Your task to perform on an android device: change the clock display to digital Image 0: 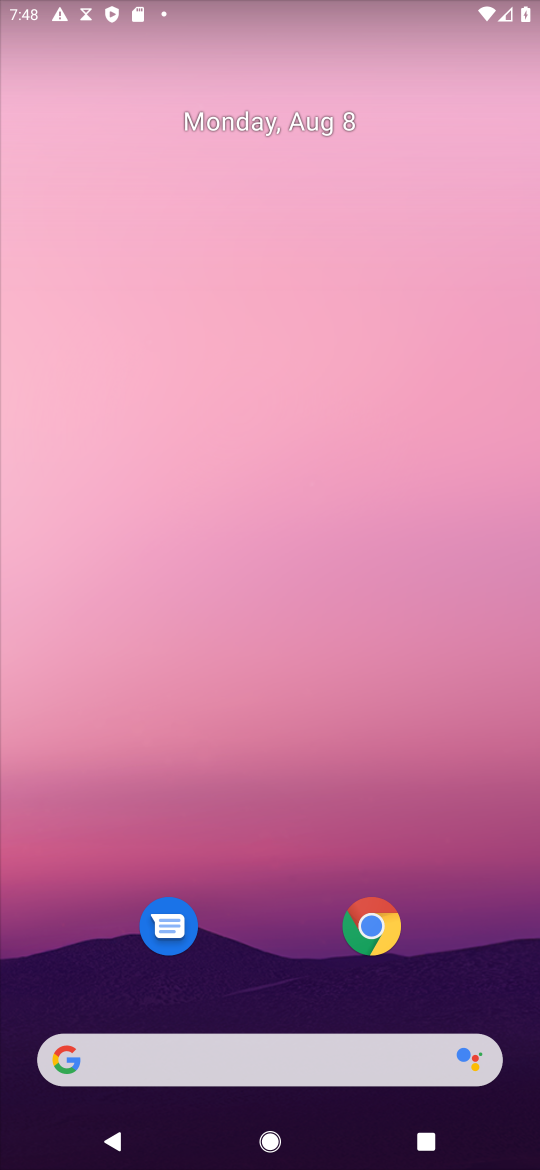
Step 0: drag from (250, 788) to (276, 263)
Your task to perform on an android device: change the clock display to digital Image 1: 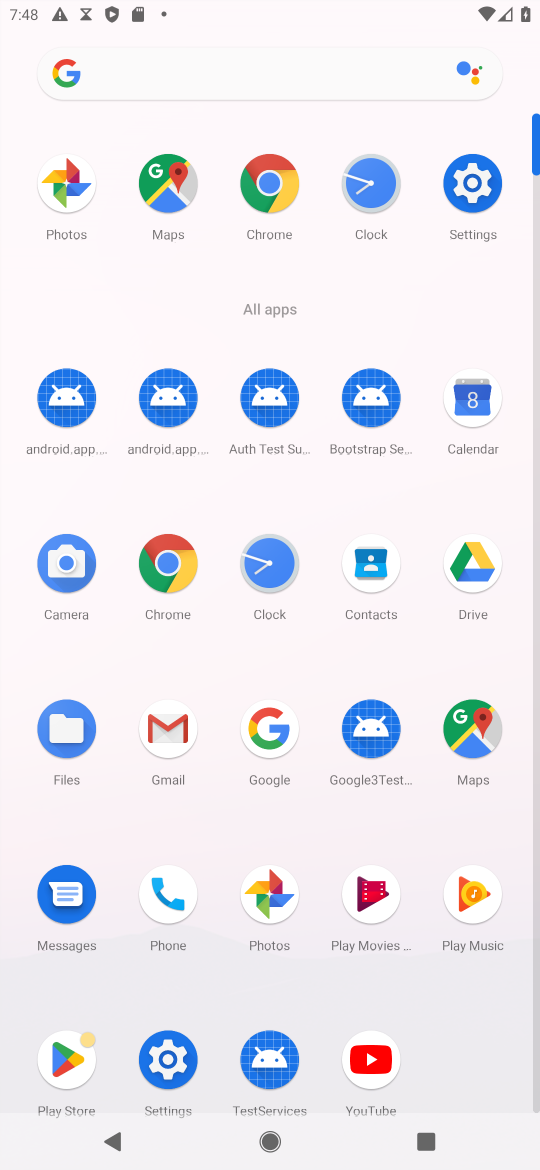
Step 1: click (374, 203)
Your task to perform on an android device: change the clock display to digital Image 2: 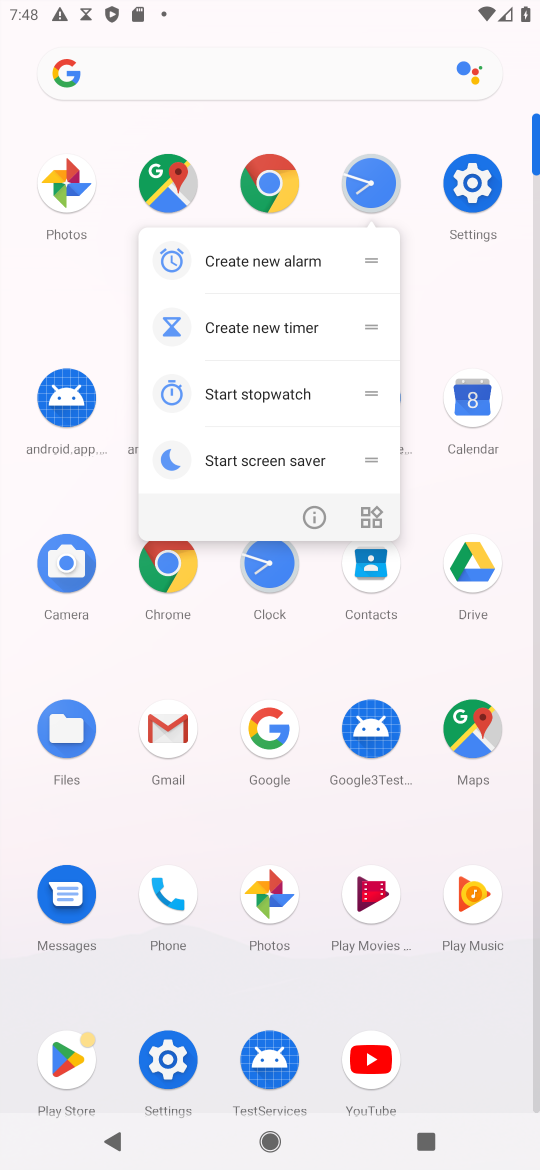
Step 2: click (369, 194)
Your task to perform on an android device: change the clock display to digital Image 3: 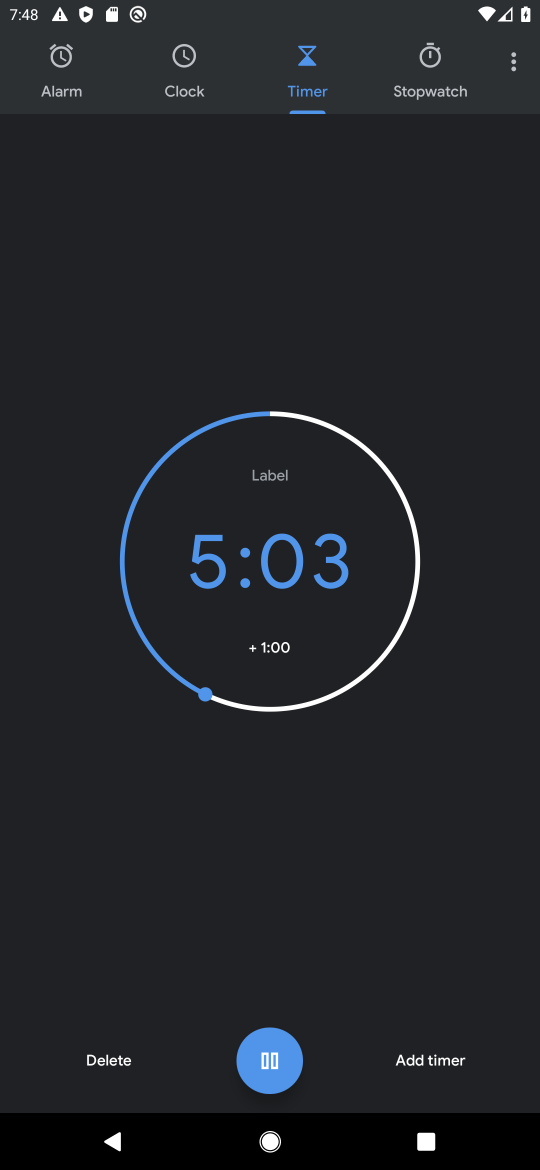
Step 3: click (515, 62)
Your task to perform on an android device: change the clock display to digital Image 4: 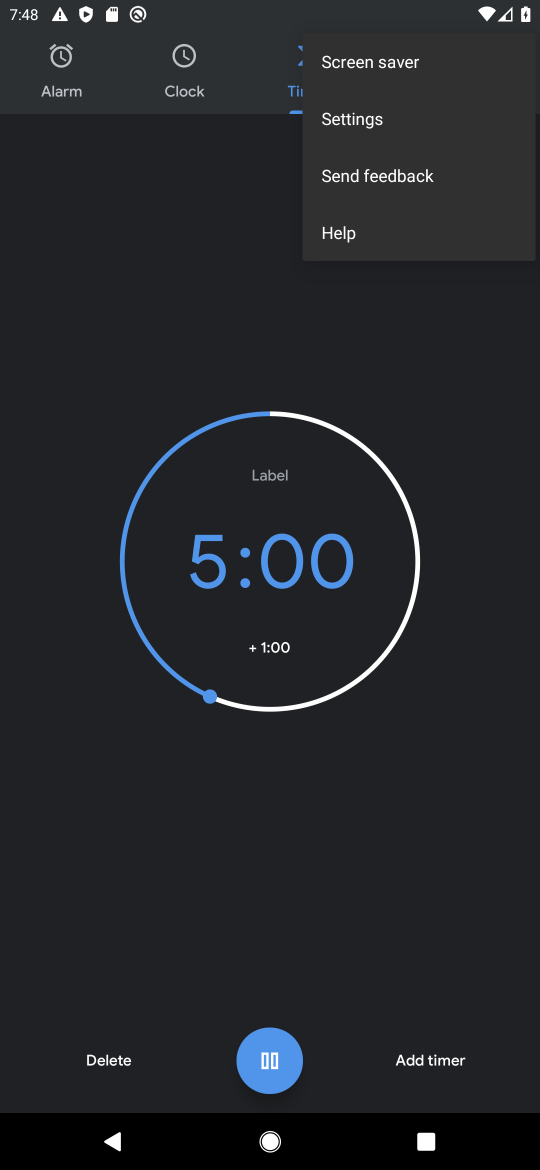
Step 4: click (340, 107)
Your task to perform on an android device: change the clock display to digital Image 5: 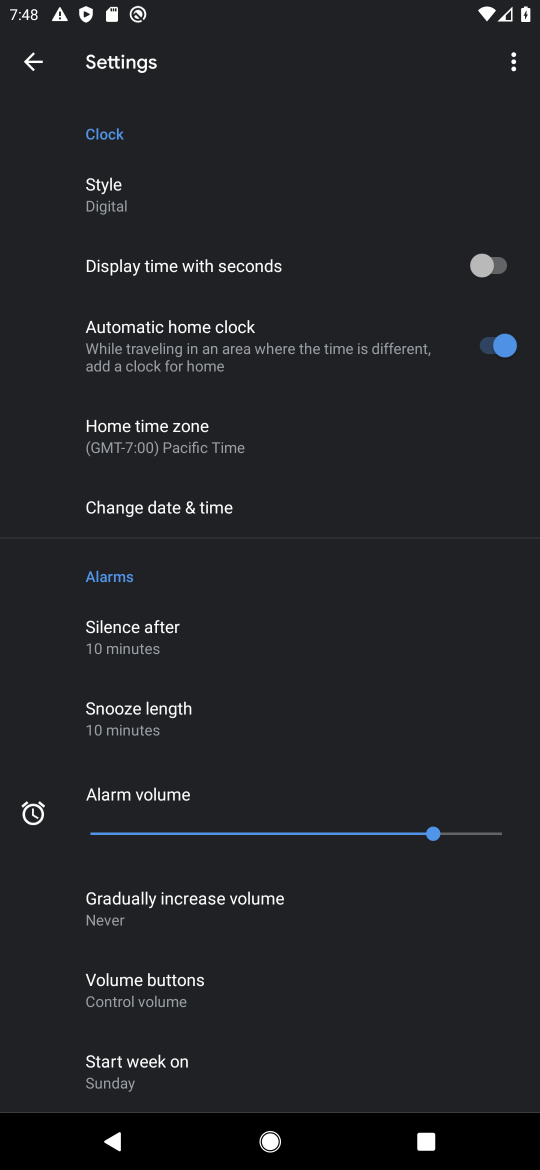
Step 5: task complete